Your task to perform on an android device: Go to Amazon Image 0: 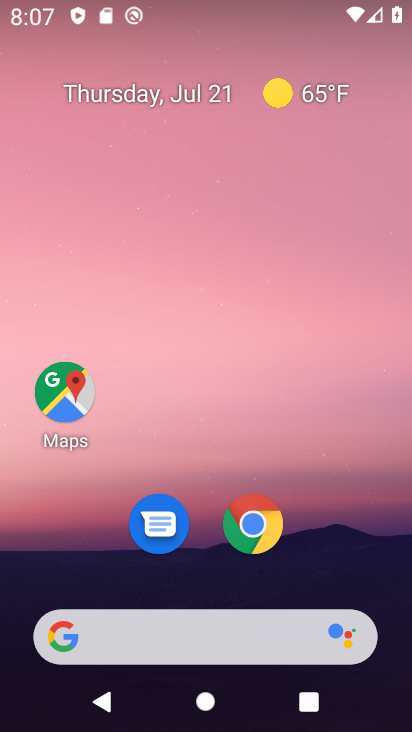
Step 0: click (251, 531)
Your task to perform on an android device: Go to Amazon Image 1: 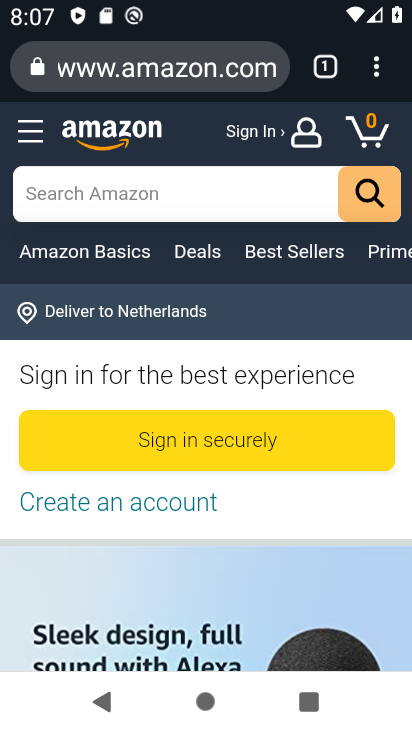
Step 1: task complete